Your task to perform on an android device: Show me popular games on the Play Store Image 0: 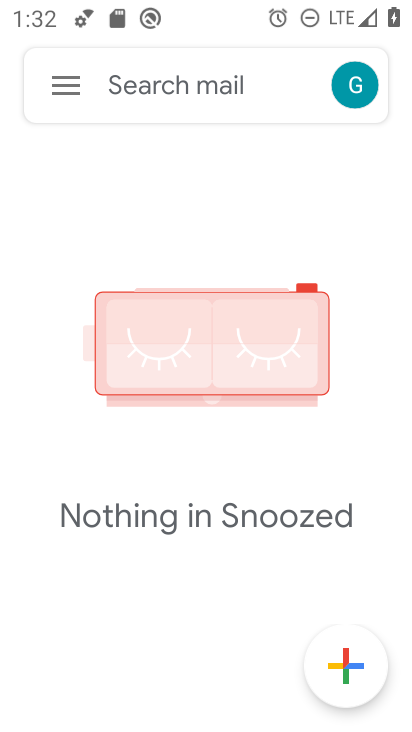
Step 0: press home button
Your task to perform on an android device: Show me popular games on the Play Store Image 1: 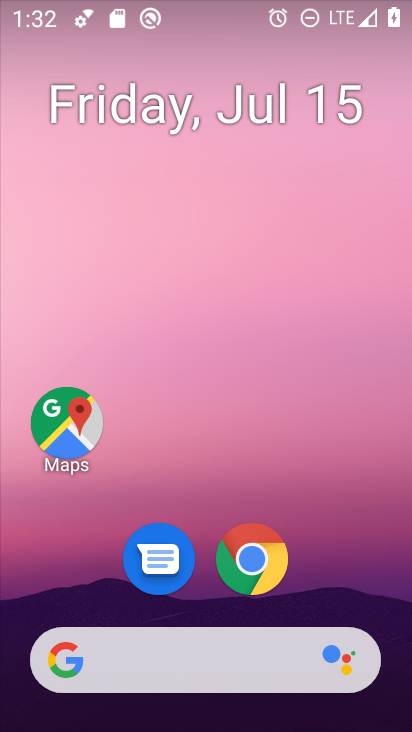
Step 1: drag from (341, 585) to (368, 51)
Your task to perform on an android device: Show me popular games on the Play Store Image 2: 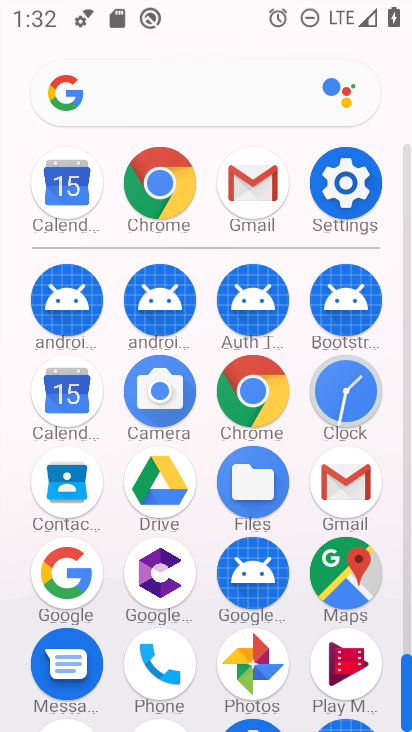
Step 2: drag from (296, 515) to (296, 253)
Your task to perform on an android device: Show me popular games on the Play Store Image 3: 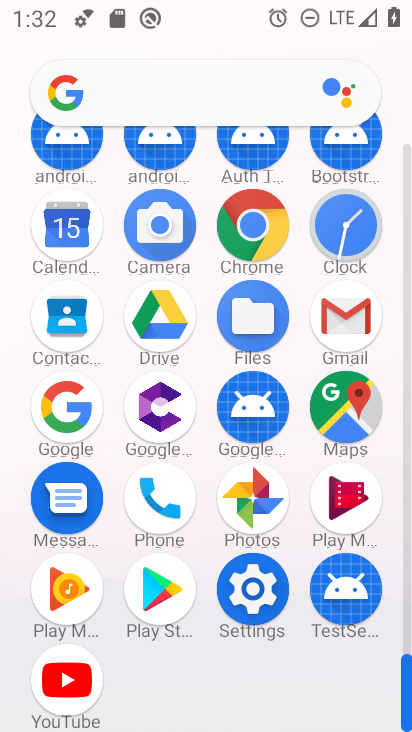
Step 3: click (153, 609)
Your task to perform on an android device: Show me popular games on the Play Store Image 4: 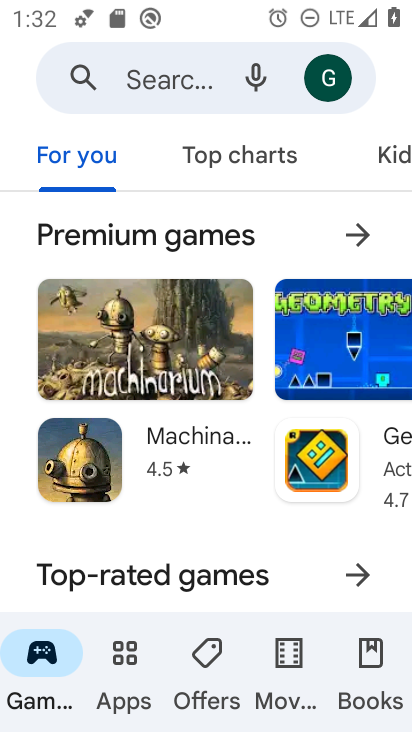
Step 4: task complete